Your task to perform on an android device: turn on the 12-hour format for clock Image 0: 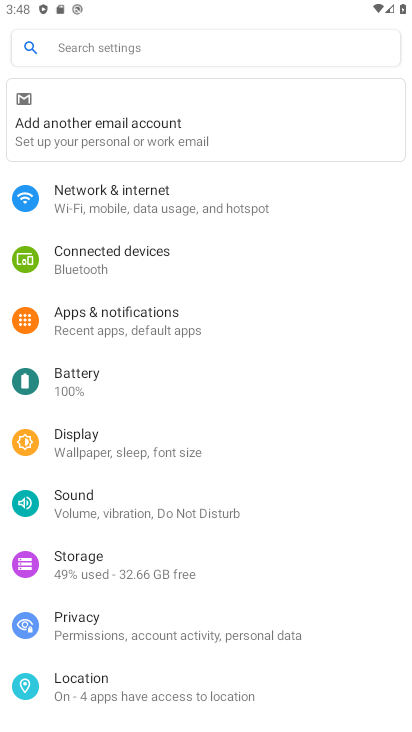
Step 0: drag from (167, 574) to (137, 9)
Your task to perform on an android device: turn on the 12-hour format for clock Image 1: 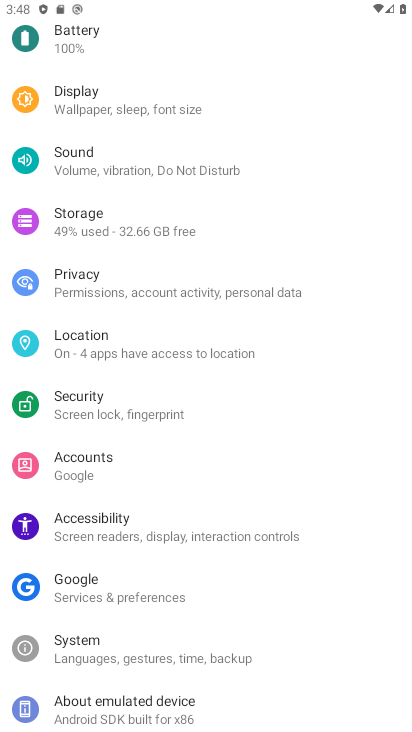
Step 1: click (115, 665)
Your task to perform on an android device: turn on the 12-hour format for clock Image 2: 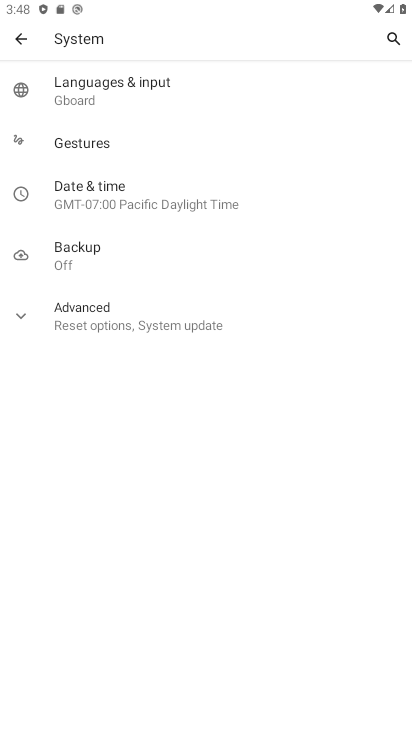
Step 2: click (89, 201)
Your task to perform on an android device: turn on the 12-hour format for clock Image 3: 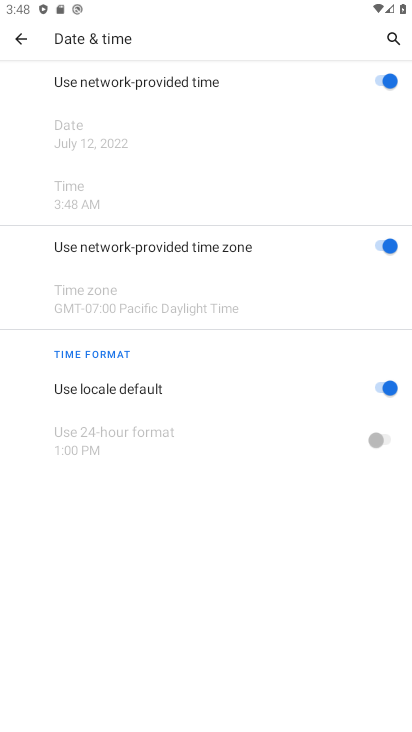
Step 3: task complete